Your task to perform on an android device: move an email to a new category in the gmail app Image 0: 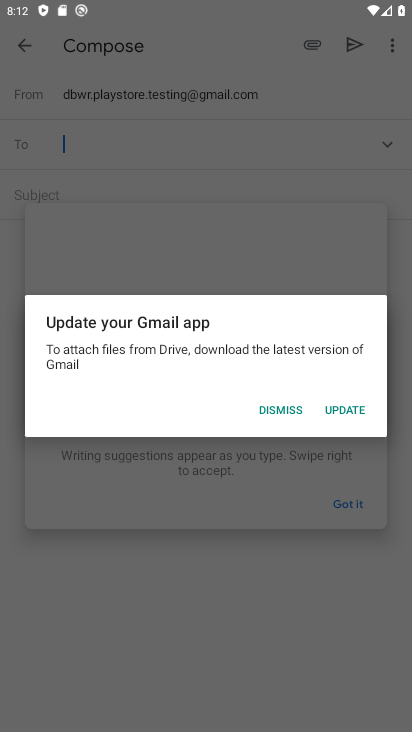
Step 0: press home button
Your task to perform on an android device: move an email to a new category in the gmail app Image 1: 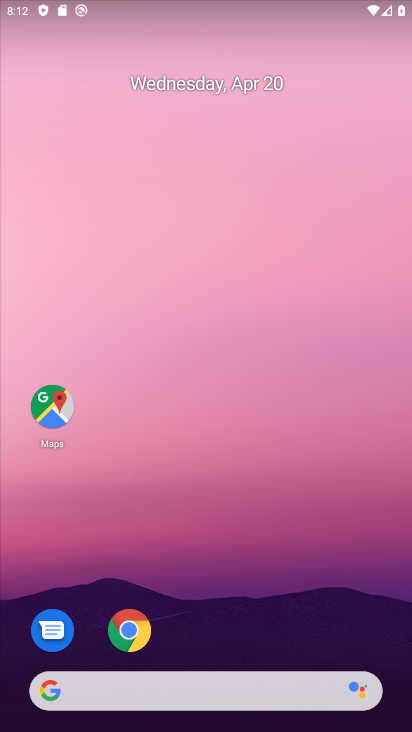
Step 1: drag from (183, 581) to (373, 8)
Your task to perform on an android device: move an email to a new category in the gmail app Image 2: 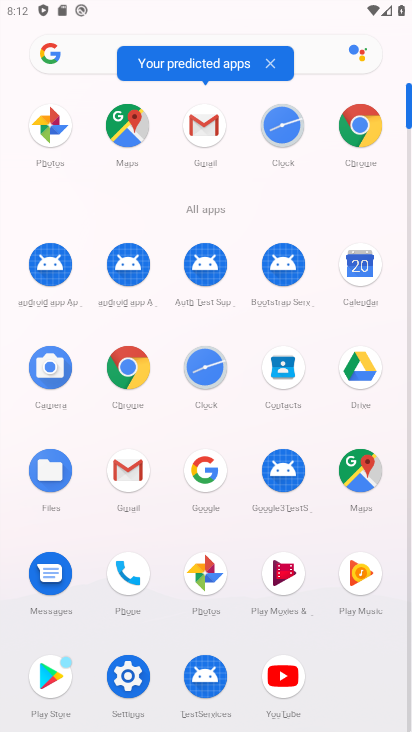
Step 2: click (119, 471)
Your task to perform on an android device: move an email to a new category in the gmail app Image 3: 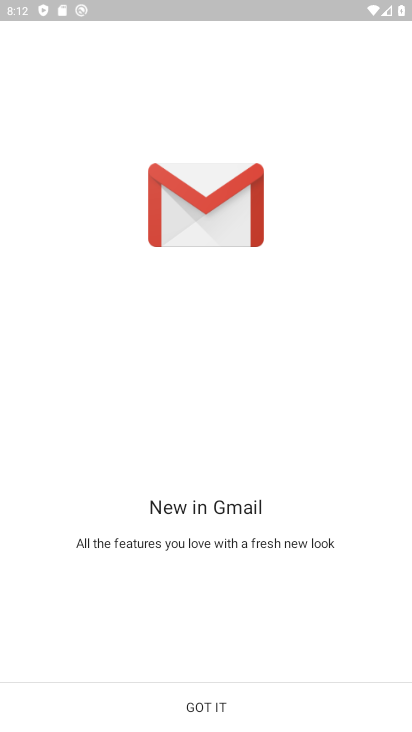
Step 3: click (202, 708)
Your task to perform on an android device: move an email to a new category in the gmail app Image 4: 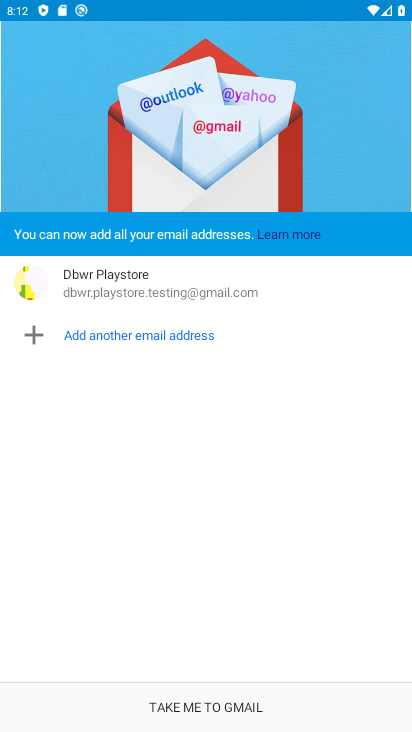
Step 4: click (204, 705)
Your task to perform on an android device: move an email to a new category in the gmail app Image 5: 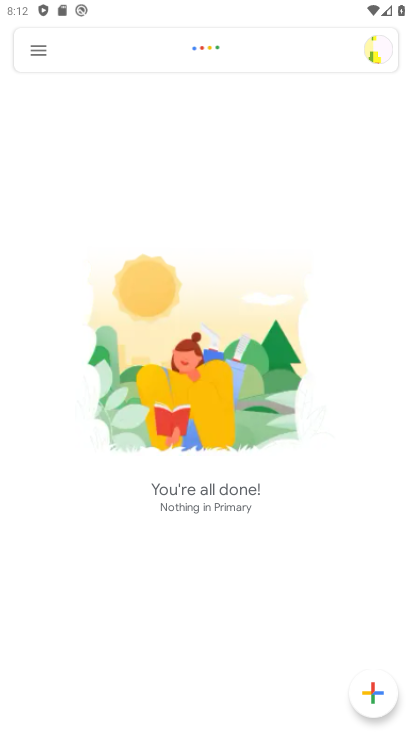
Step 5: click (29, 59)
Your task to perform on an android device: move an email to a new category in the gmail app Image 6: 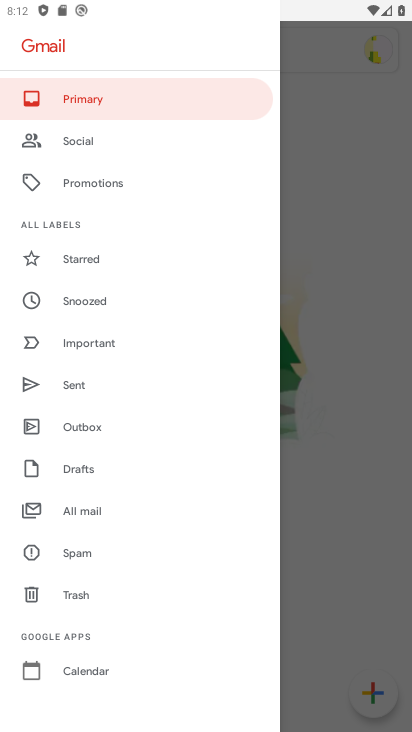
Step 6: click (88, 514)
Your task to perform on an android device: move an email to a new category in the gmail app Image 7: 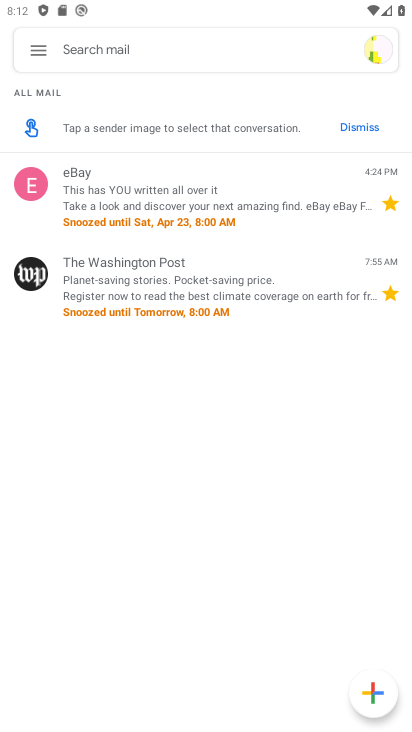
Step 7: click (25, 188)
Your task to perform on an android device: move an email to a new category in the gmail app Image 8: 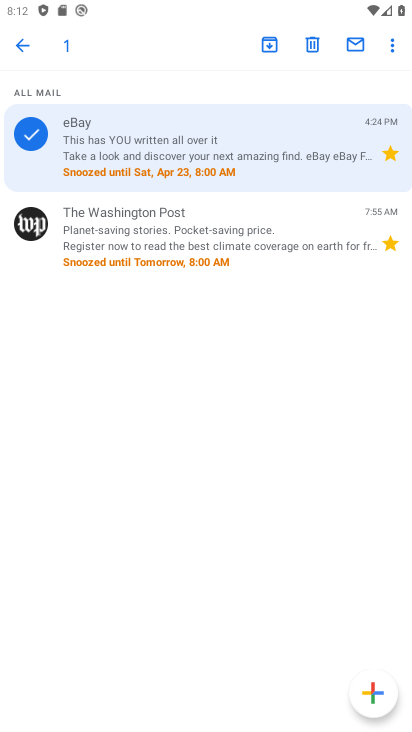
Step 8: click (390, 48)
Your task to perform on an android device: move an email to a new category in the gmail app Image 9: 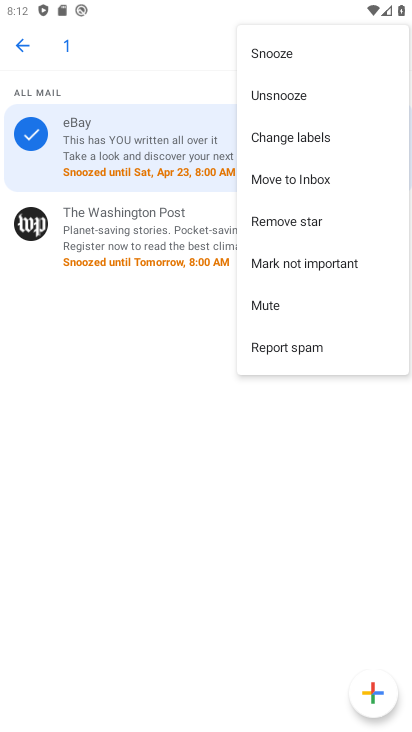
Step 9: click (290, 181)
Your task to perform on an android device: move an email to a new category in the gmail app Image 10: 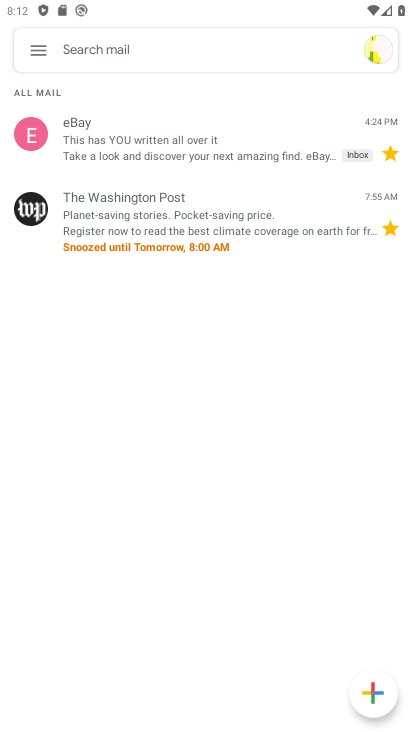
Step 10: task complete